Your task to perform on an android device: toggle javascript in the chrome app Image 0: 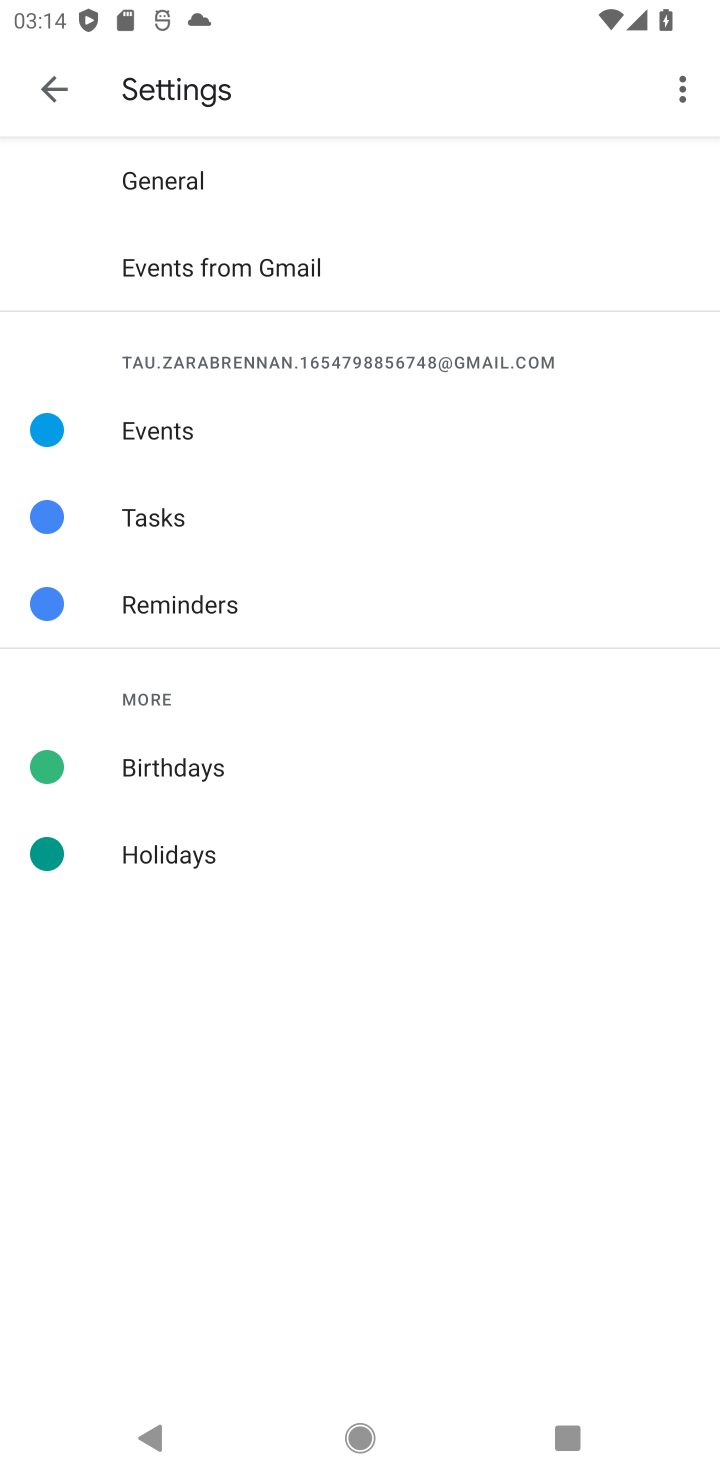
Step 0: press home button
Your task to perform on an android device: toggle javascript in the chrome app Image 1: 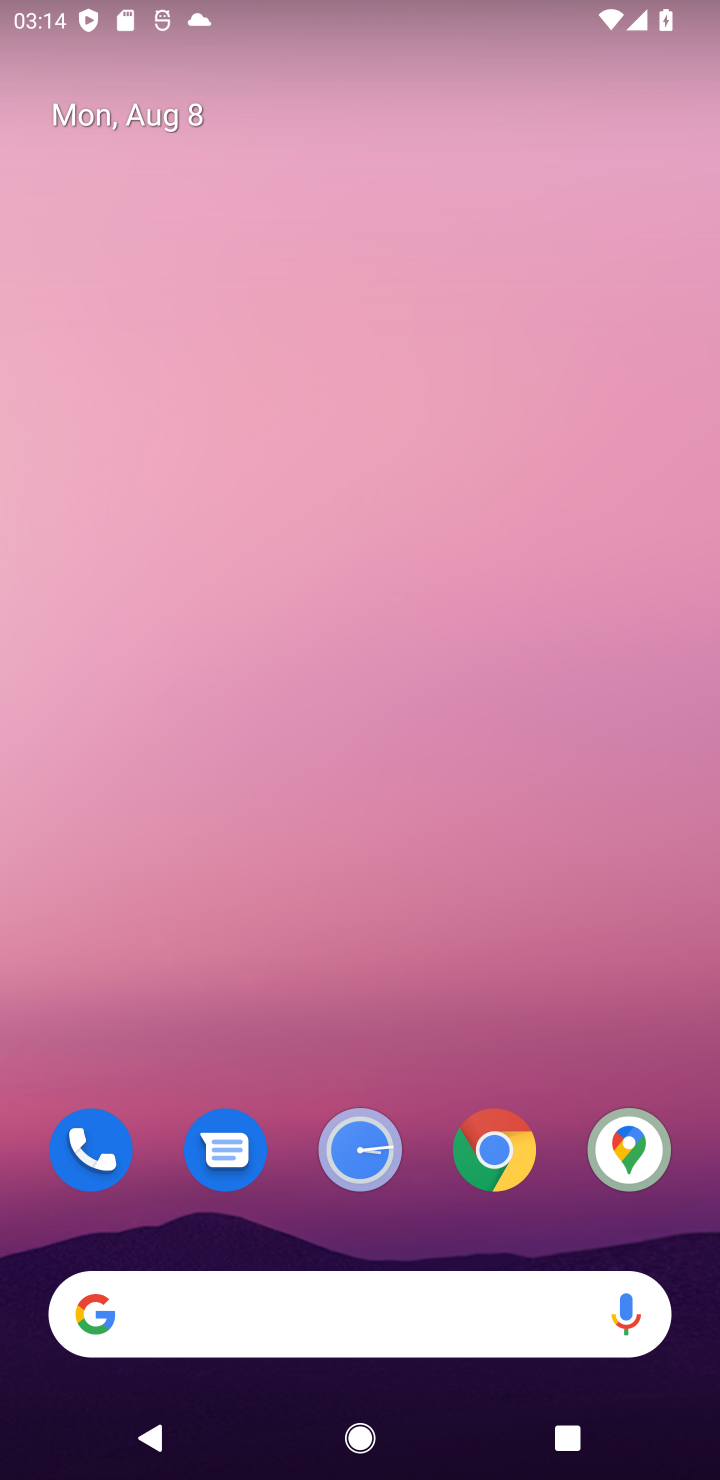
Step 1: click (494, 1187)
Your task to perform on an android device: toggle javascript in the chrome app Image 2: 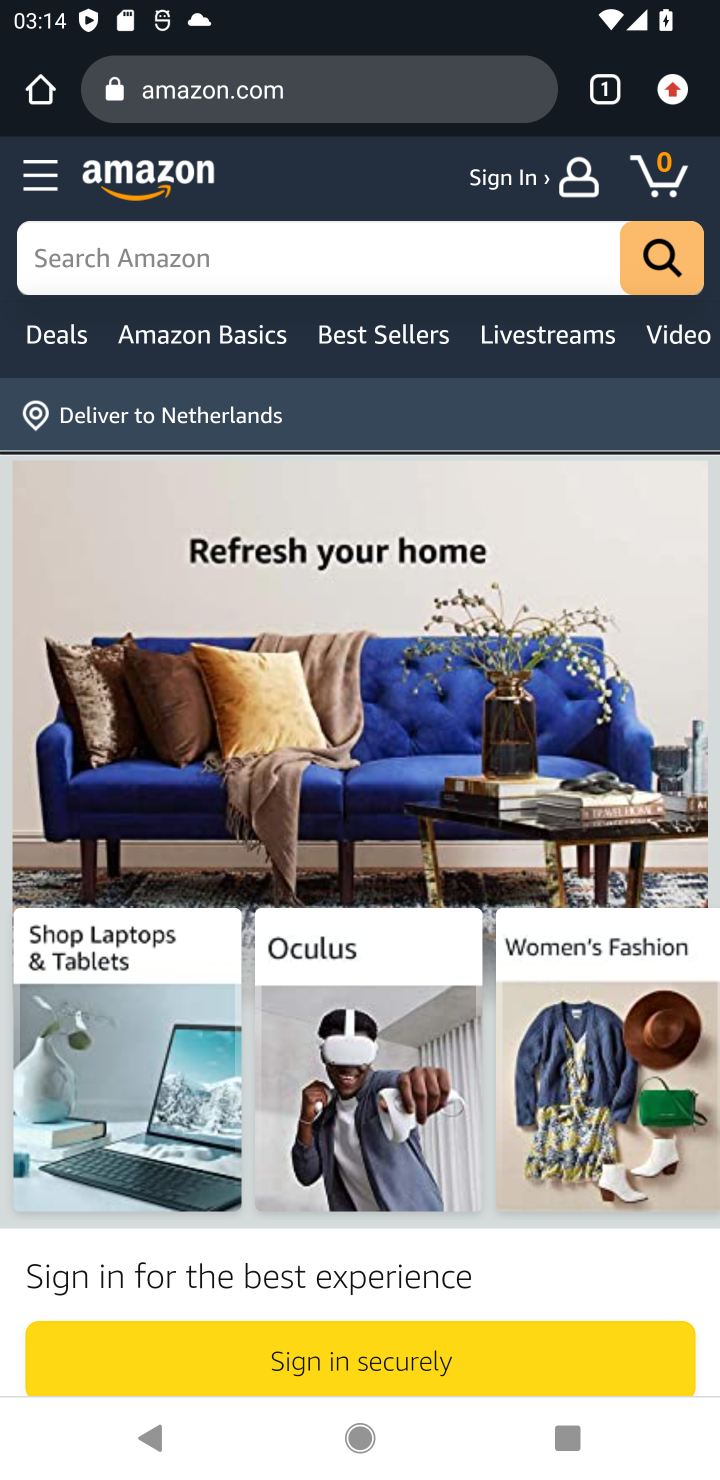
Step 2: click (682, 87)
Your task to perform on an android device: toggle javascript in the chrome app Image 3: 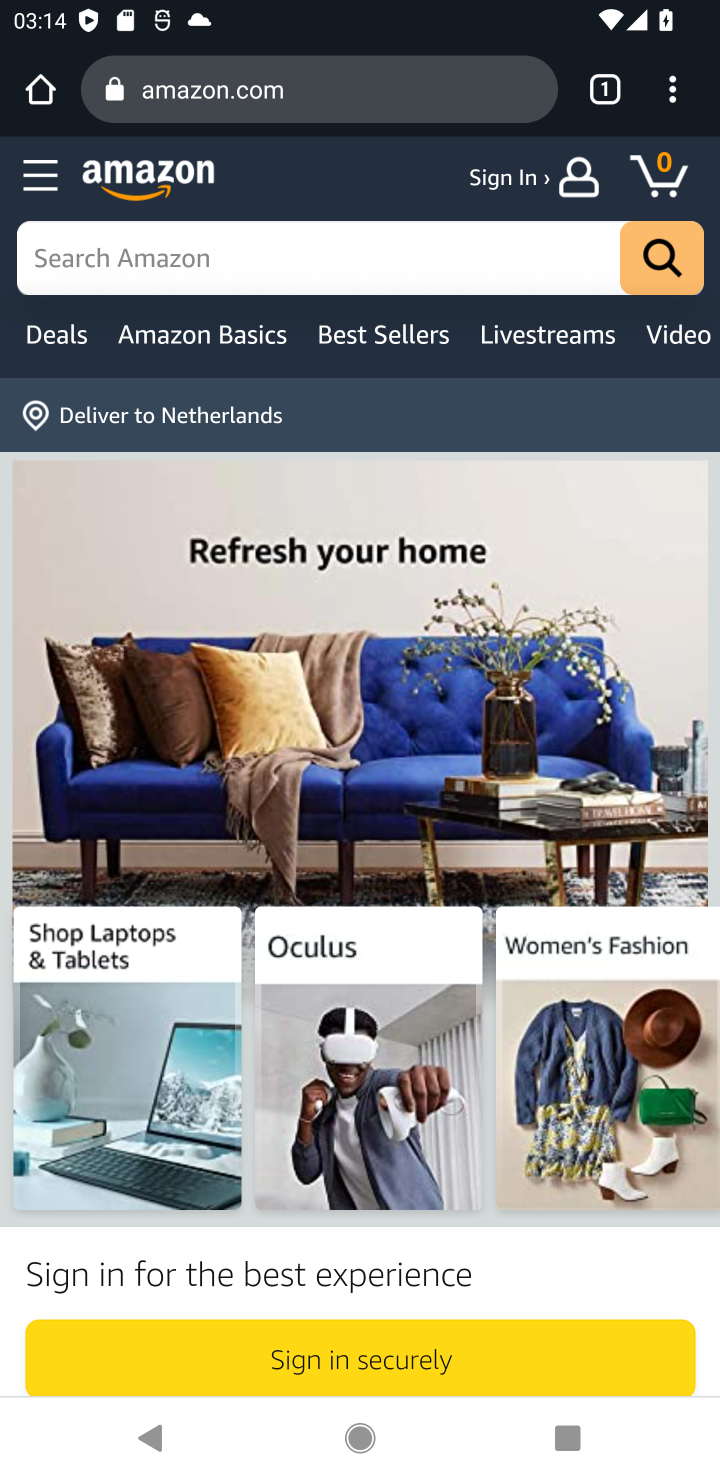
Step 3: click (673, 82)
Your task to perform on an android device: toggle javascript in the chrome app Image 4: 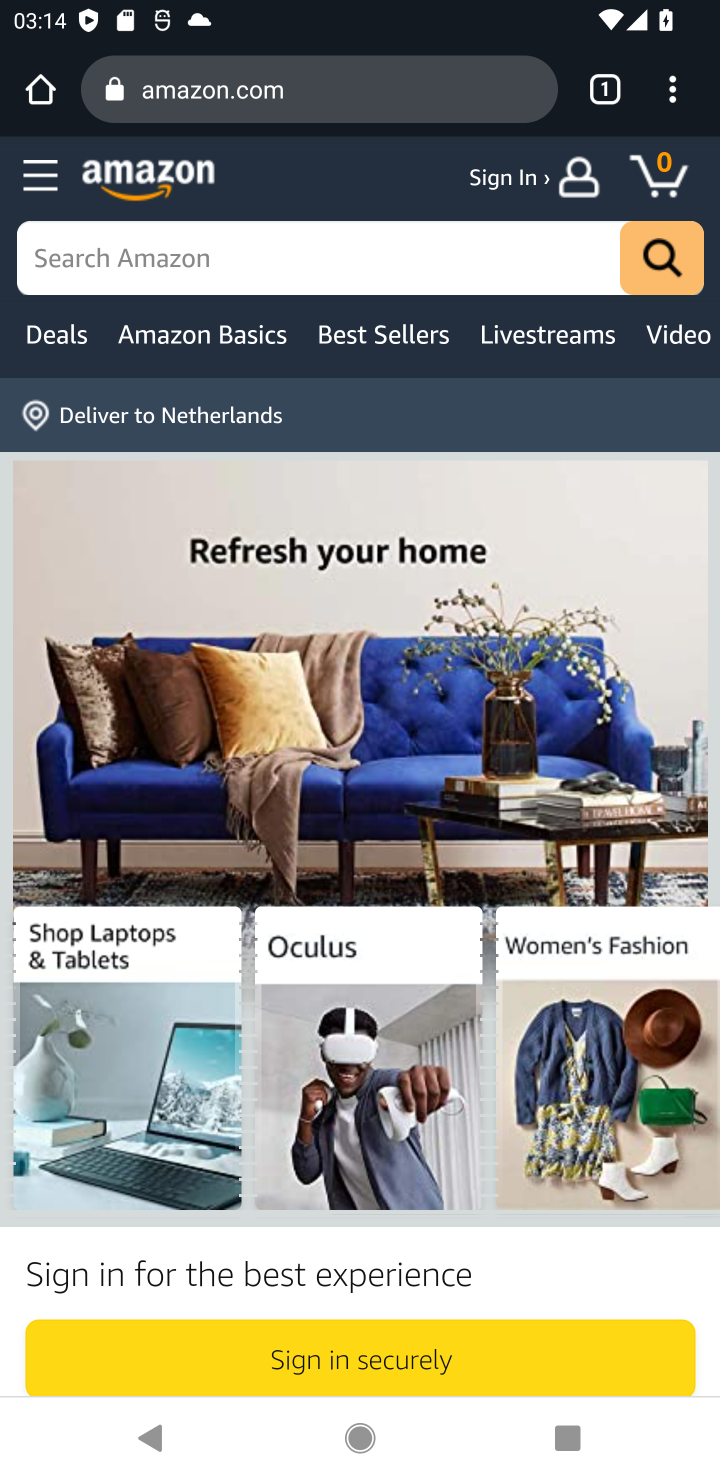
Step 4: click (674, 86)
Your task to perform on an android device: toggle javascript in the chrome app Image 5: 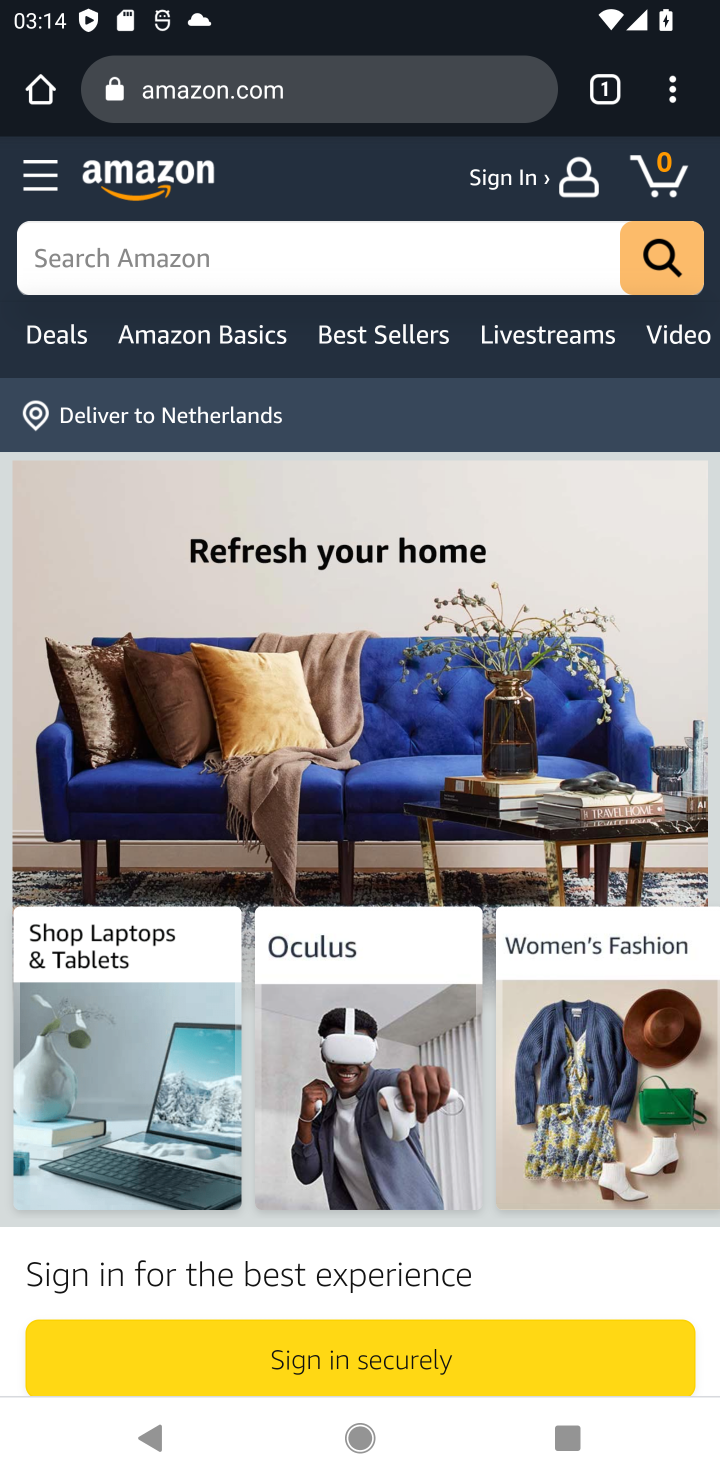
Step 5: click (677, 103)
Your task to perform on an android device: toggle javascript in the chrome app Image 6: 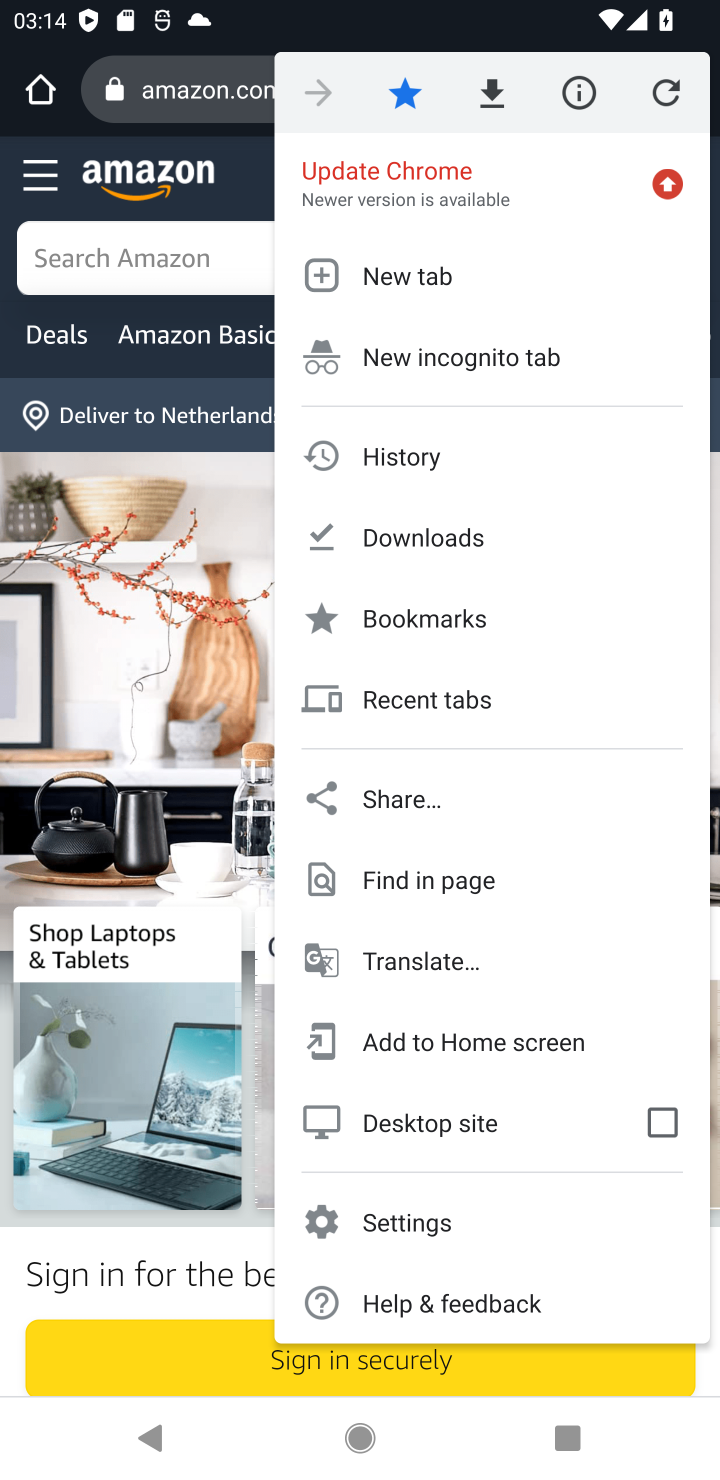
Step 6: click (461, 1218)
Your task to perform on an android device: toggle javascript in the chrome app Image 7: 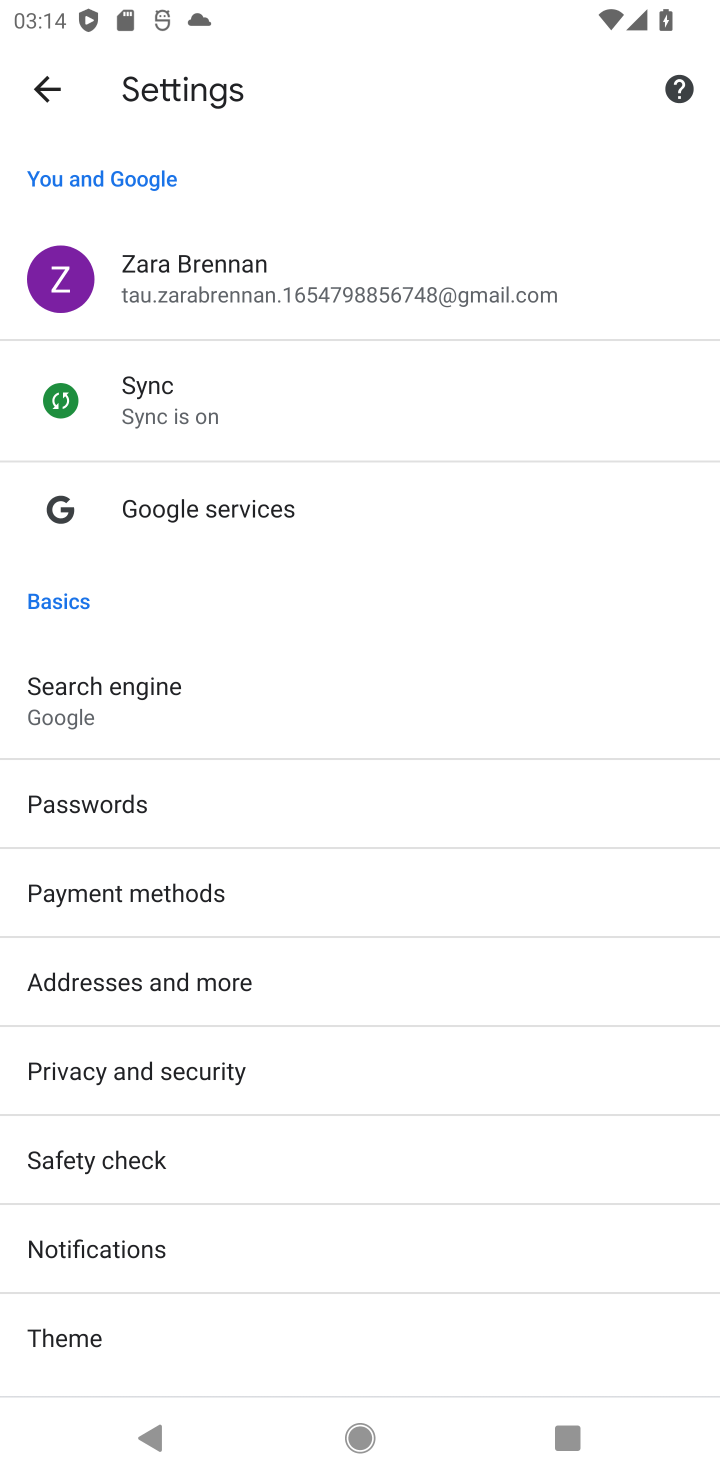
Step 7: click (565, 184)
Your task to perform on an android device: toggle javascript in the chrome app Image 8: 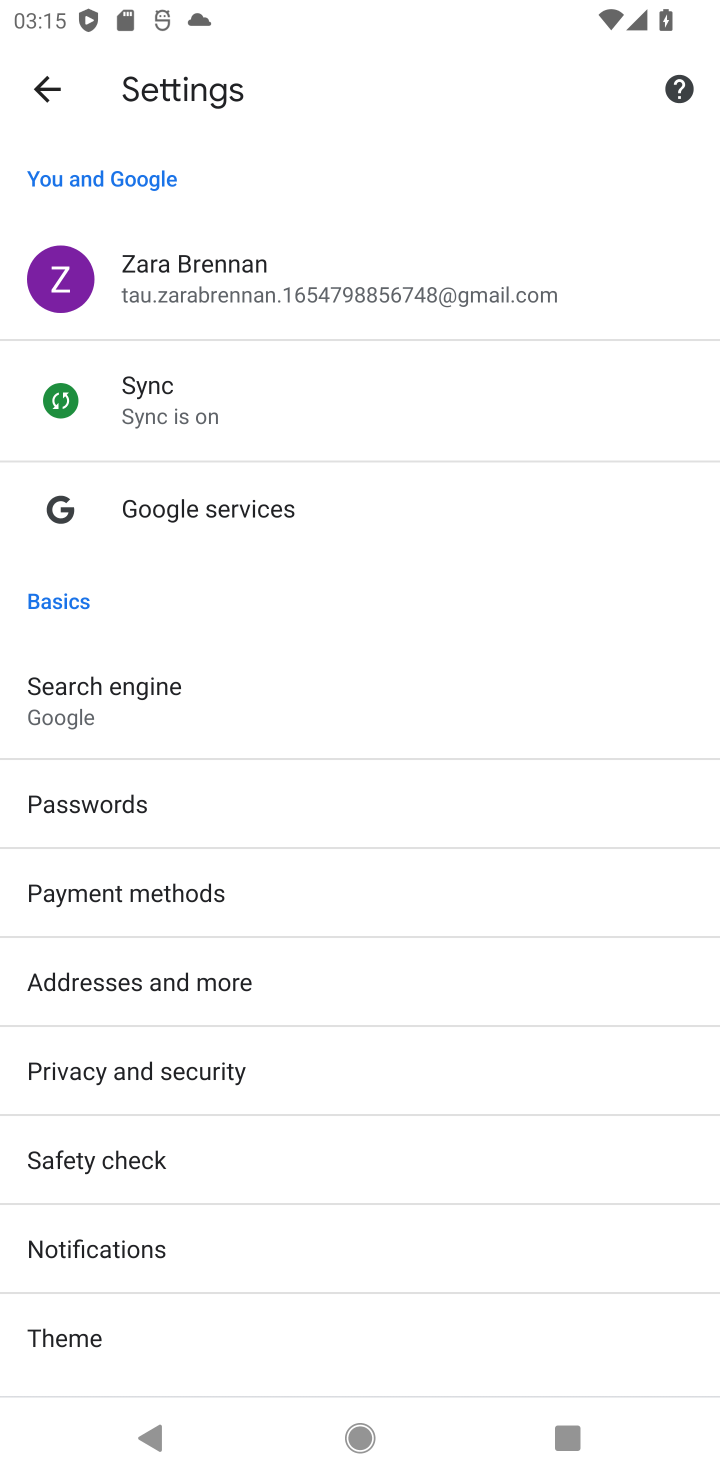
Step 8: click (503, 1401)
Your task to perform on an android device: toggle javascript in the chrome app Image 9: 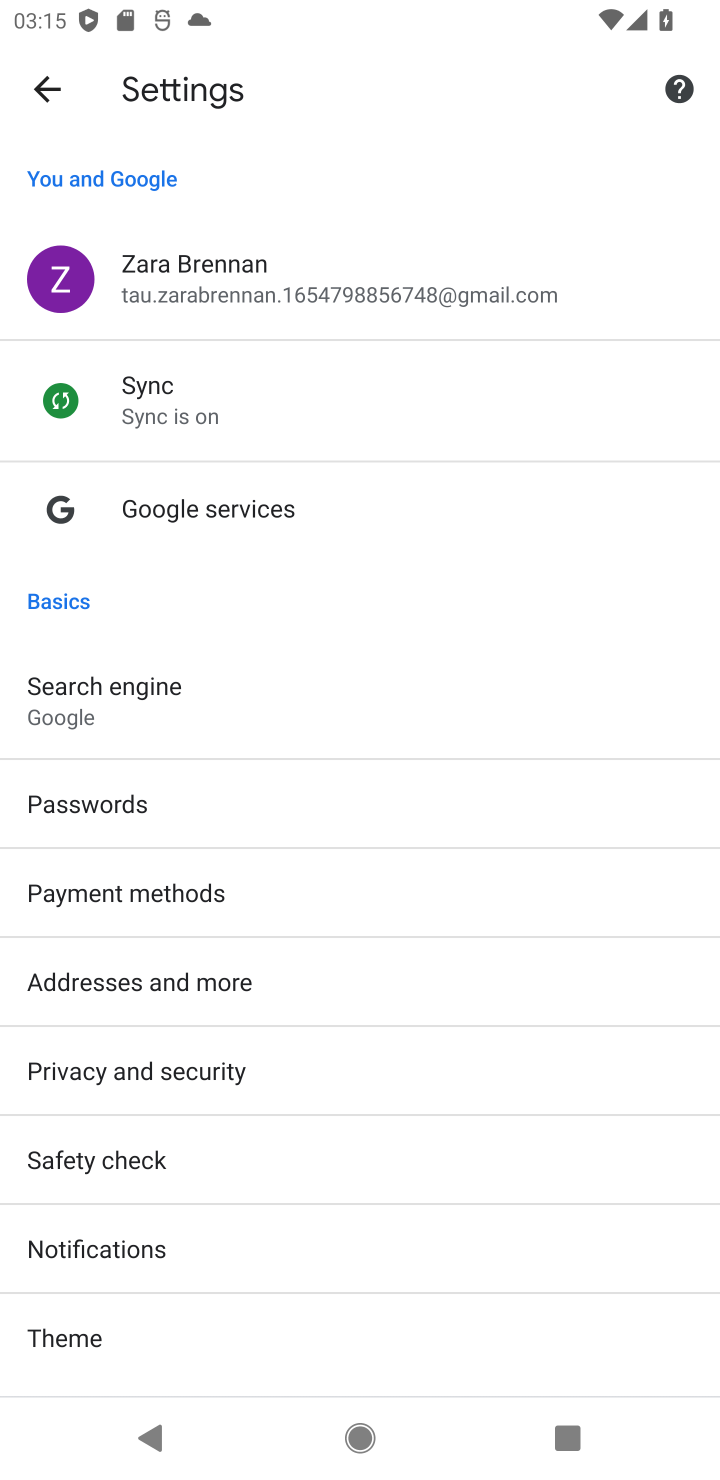
Step 9: click (503, 1401)
Your task to perform on an android device: toggle javascript in the chrome app Image 10: 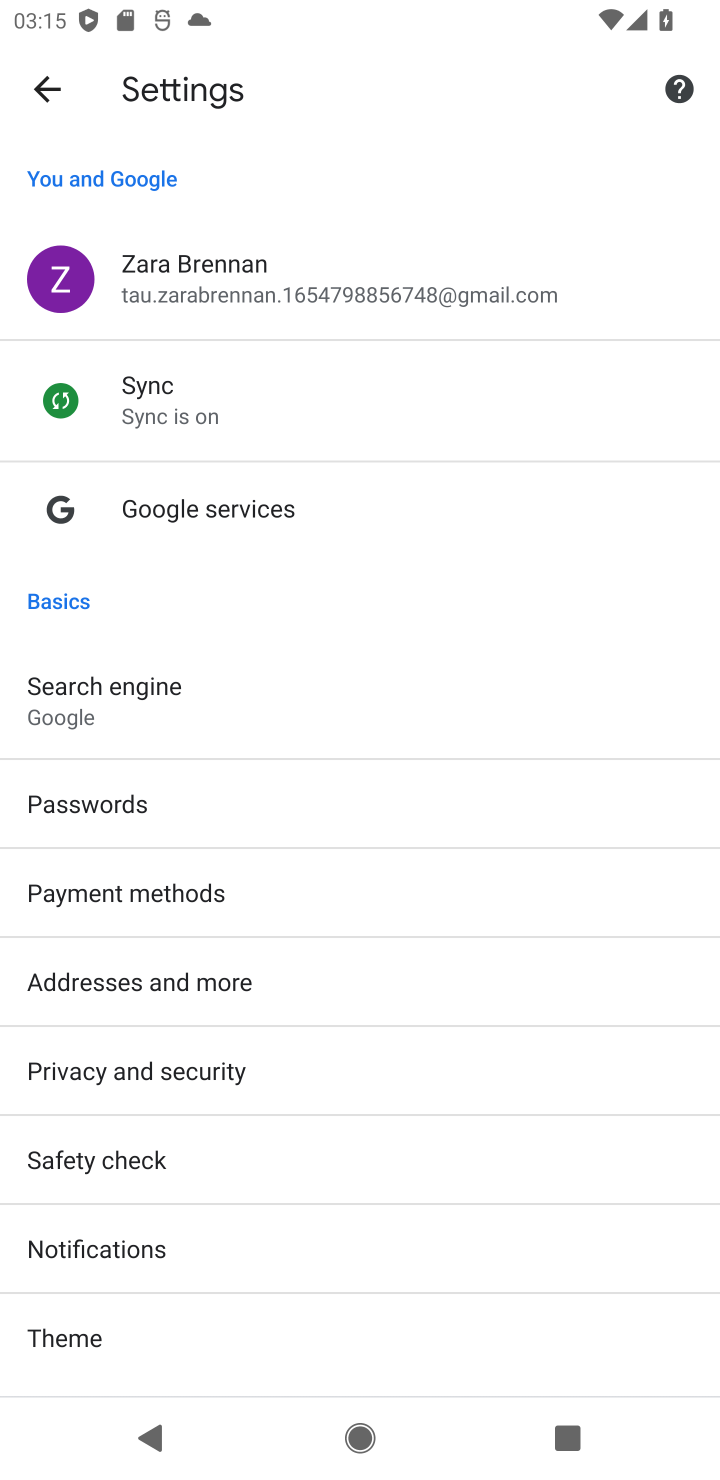
Step 10: click (503, 1401)
Your task to perform on an android device: toggle javascript in the chrome app Image 11: 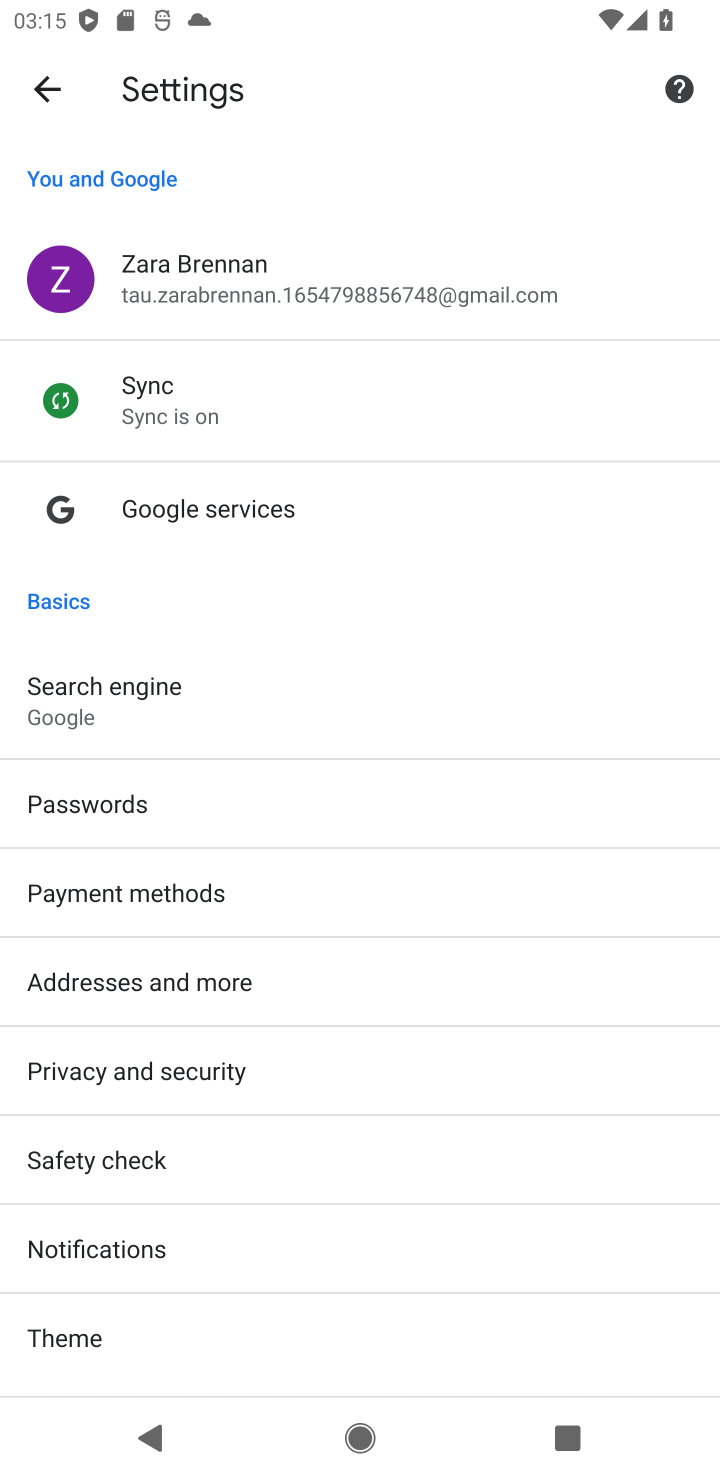
Step 11: drag from (273, 1344) to (240, 749)
Your task to perform on an android device: toggle javascript in the chrome app Image 12: 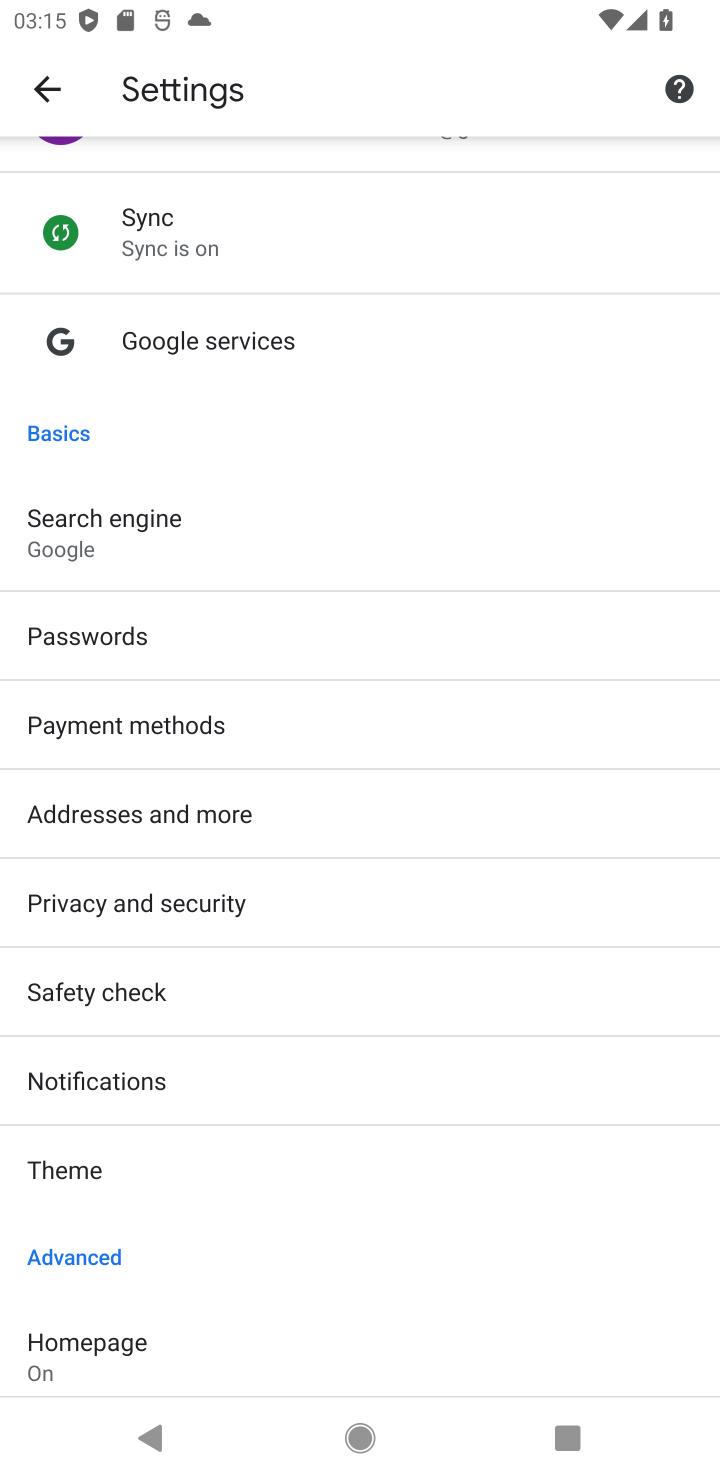
Step 12: drag from (401, 1302) to (389, 616)
Your task to perform on an android device: toggle javascript in the chrome app Image 13: 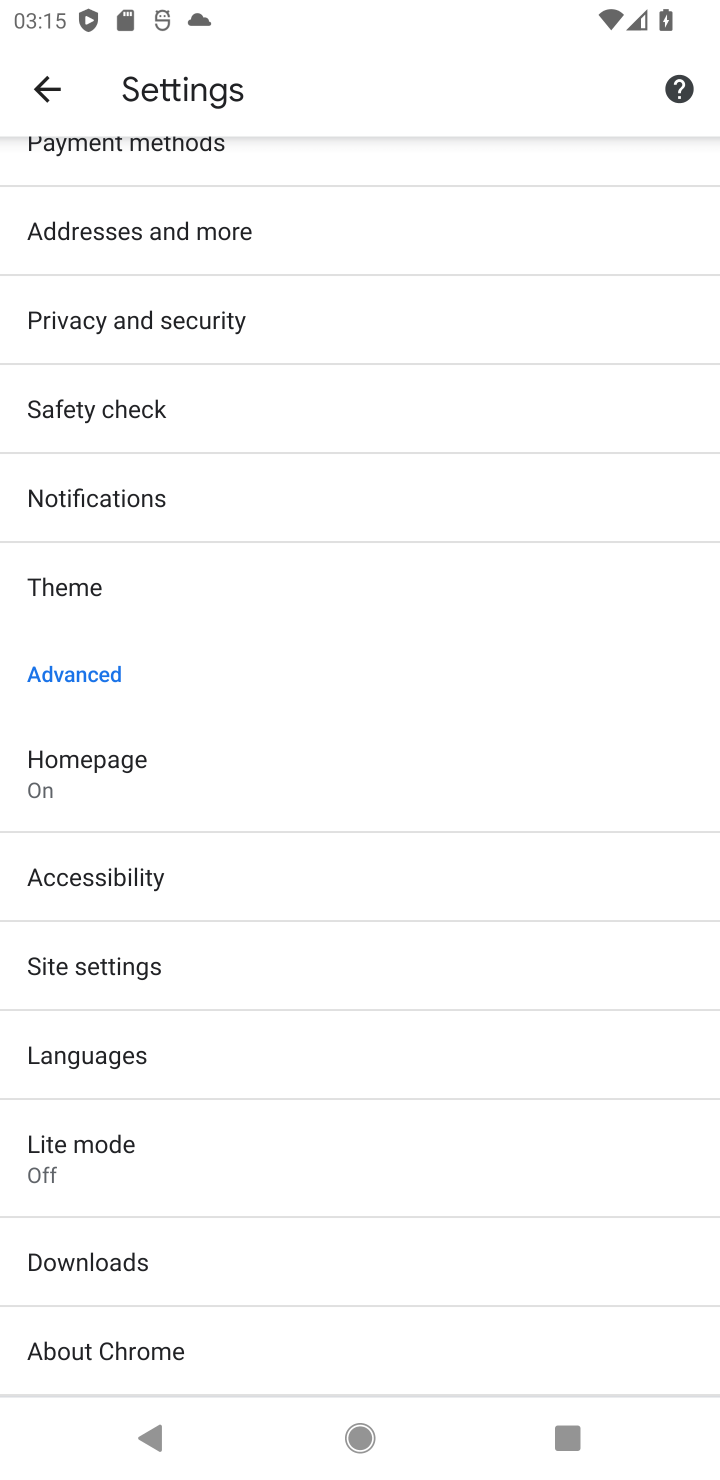
Step 13: click (100, 960)
Your task to perform on an android device: toggle javascript in the chrome app Image 14: 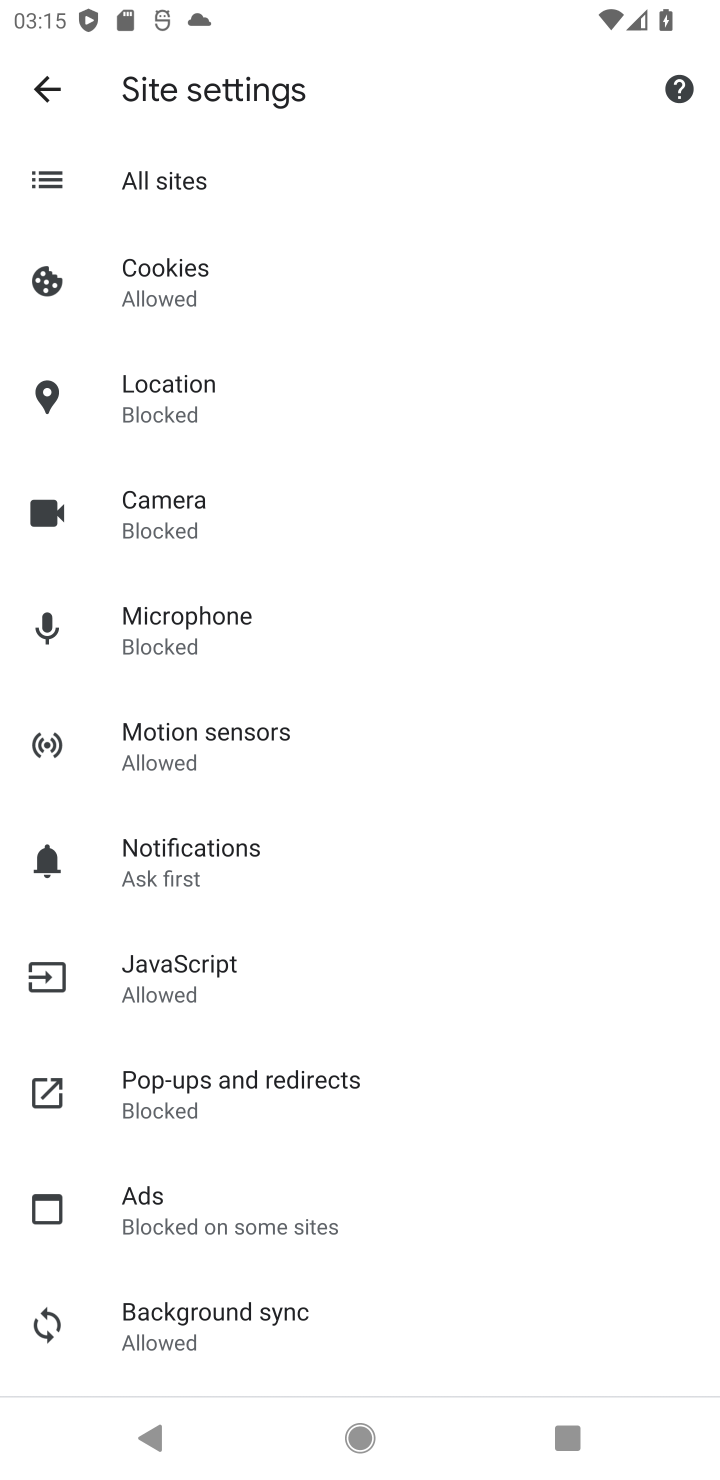
Step 14: click (198, 987)
Your task to perform on an android device: toggle javascript in the chrome app Image 15: 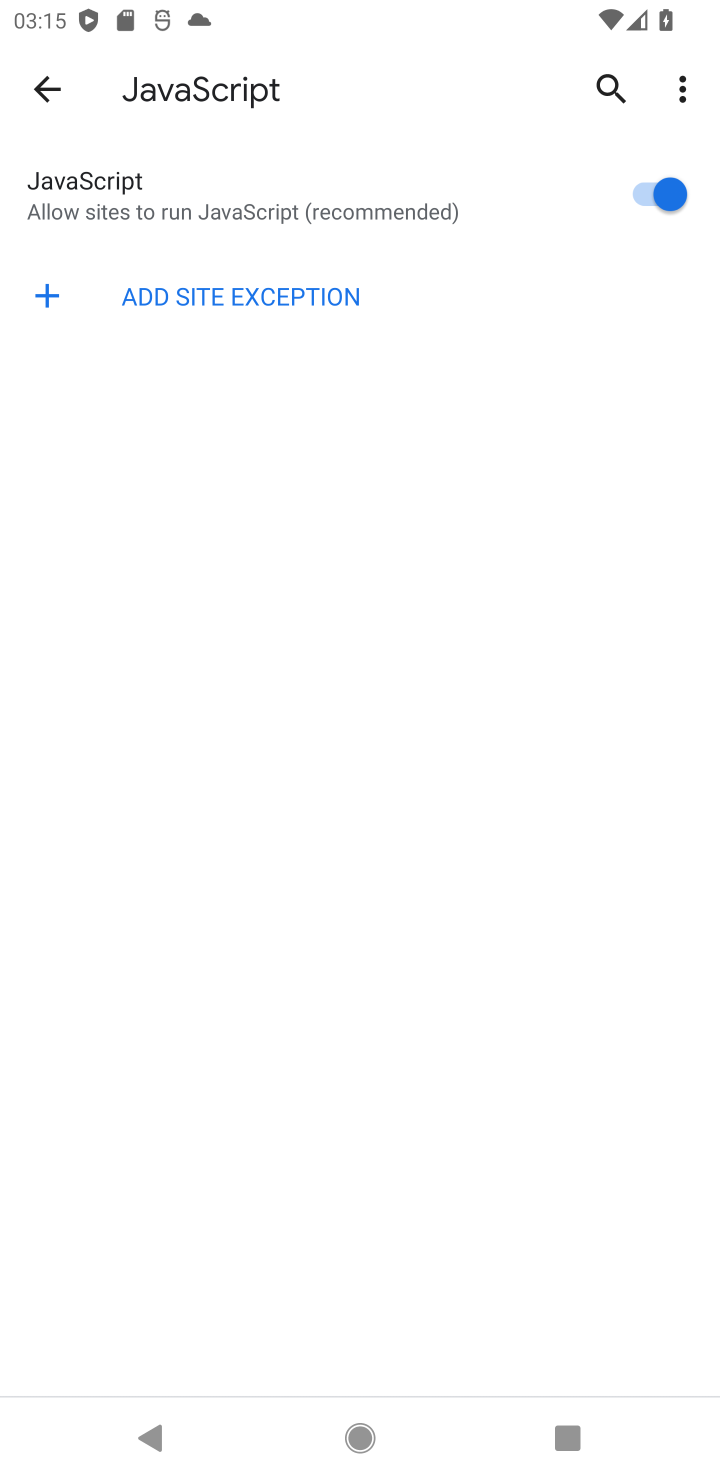
Step 15: task complete